Your task to perform on an android device: turn off notifications in google photos Image 0: 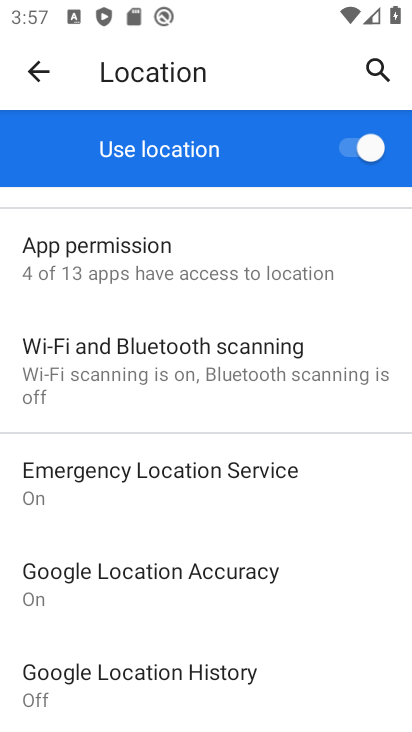
Step 0: press home button
Your task to perform on an android device: turn off notifications in google photos Image 1: 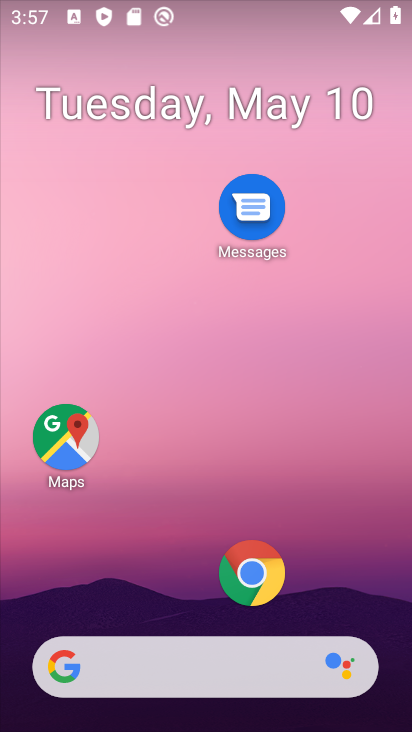
Step 1: drag from (170, 587) to (185, 244)
Your task to perform on an android device: turn off notifications in google photos Image 2: 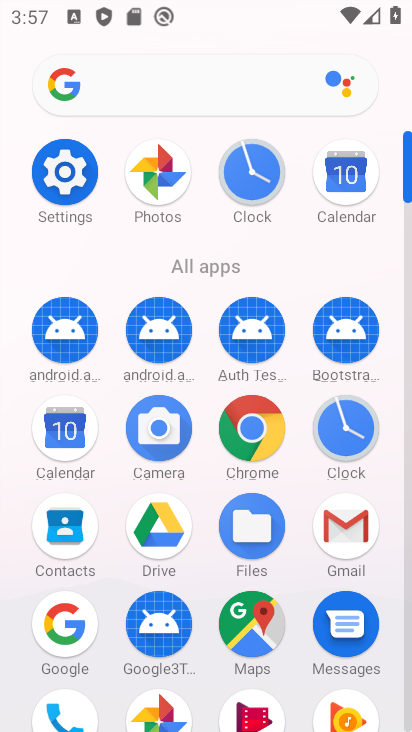
Step 2: click (155, 200)
Your task to perform on an android device: turn off notifications in google photos Image 3: 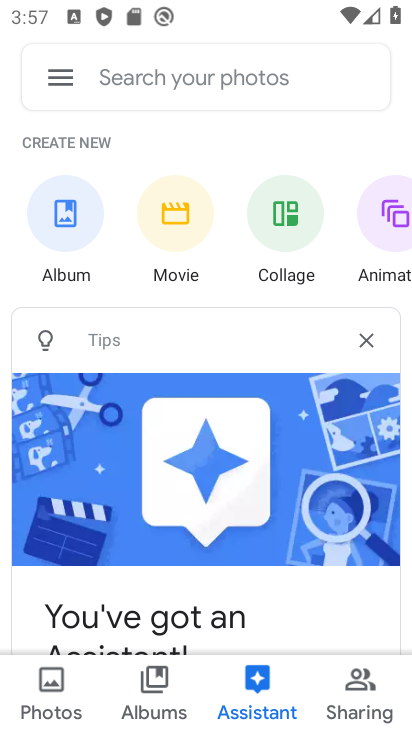
Step 3: click (62, 95)
Your task to perform on an android device: turn off notifications in google photos Image 4: 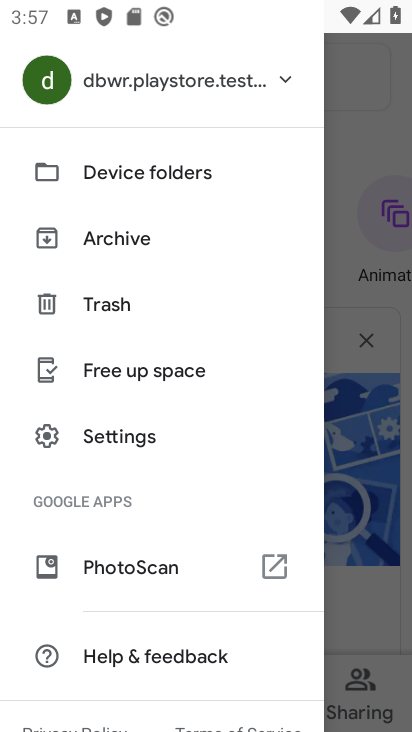
Step 4: click (113, 454)
Your task to perform on an android device: turn off notifications in google photos Image 5: 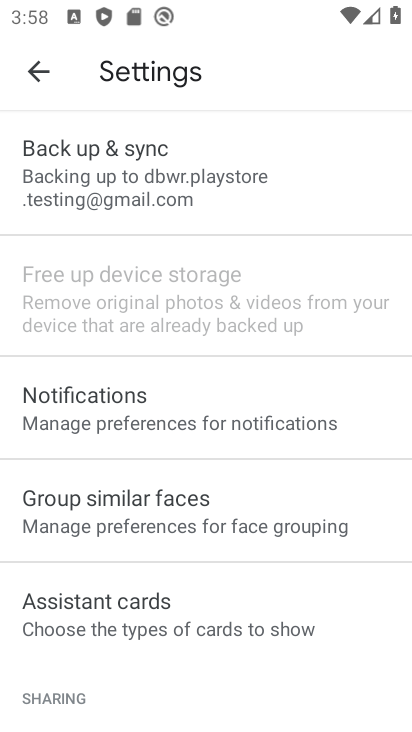
Step 5: click (148, 434)
Your task to perform on an android device: turn off notifications in google photos Image 6: 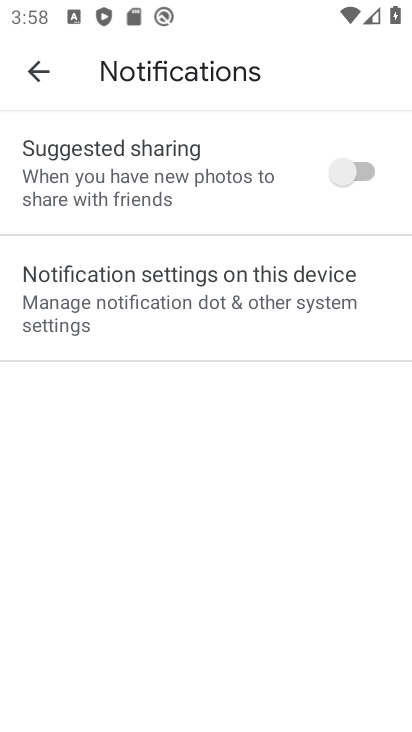
Step 6: click (190, 344)
Your task to perform on an android device: turn off notifications in google photos Image 7: 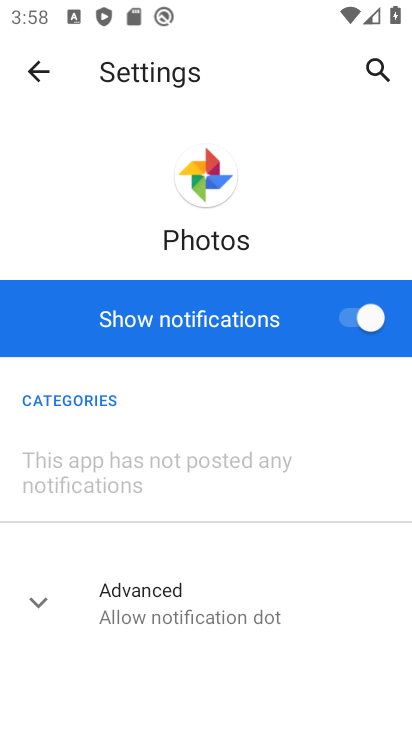
Step 7: drag from (235, 644) to (237, 213)
Your task to perform on an android device: turn off notifications in google photos Image 8: 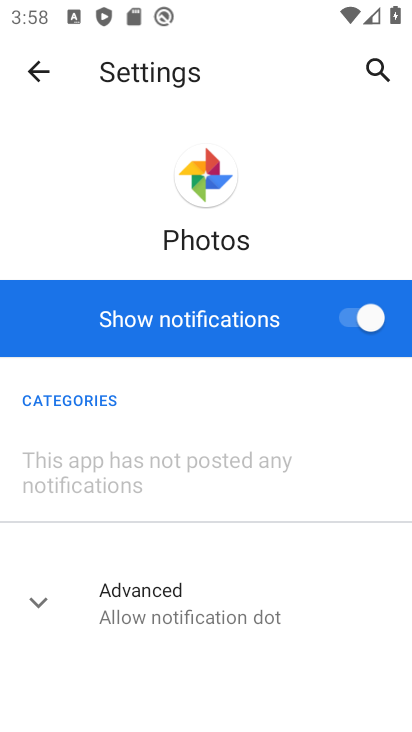
Step 8: click (192, 606)
Your task to perform on an android device: turn off notifications in google photos Image 9: 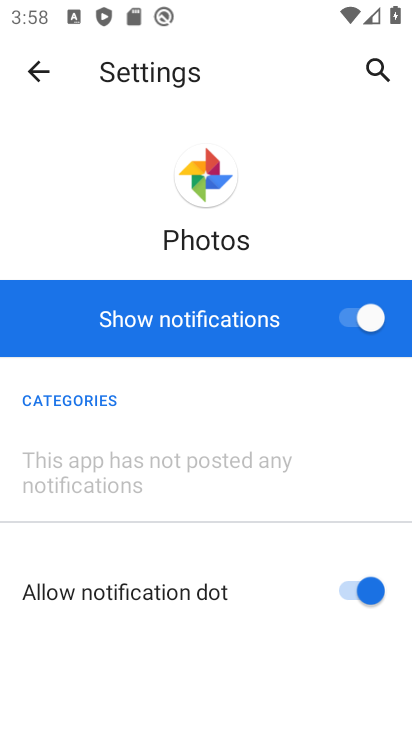
Step 9: drag from (239, 646) to (218, 278)
Your task to perform on an android device: turn off notifications in google photos Image 10: 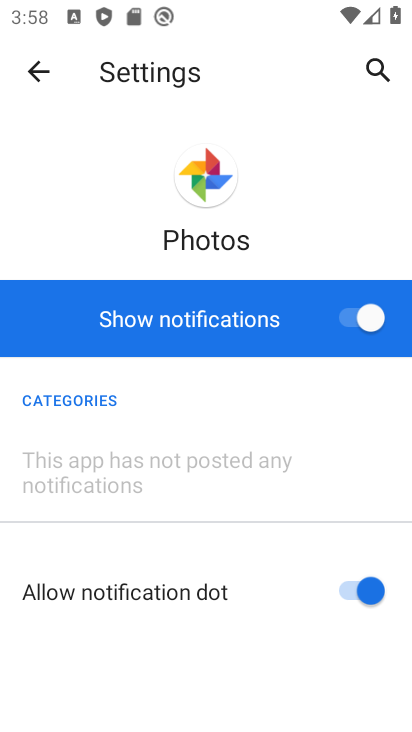
Step 10: click (337, 317)
Your task to perform on an android device: turn off notifications in google photos Image 11: 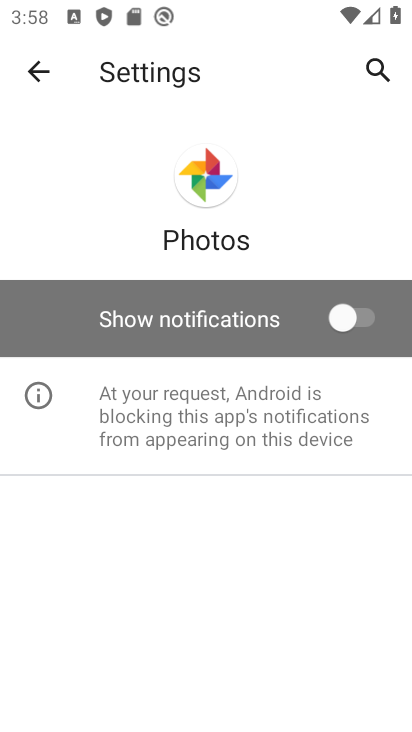
Step 11: task complete